Your task to perform on an android device: toggle javascript in the chrome app Image 0: 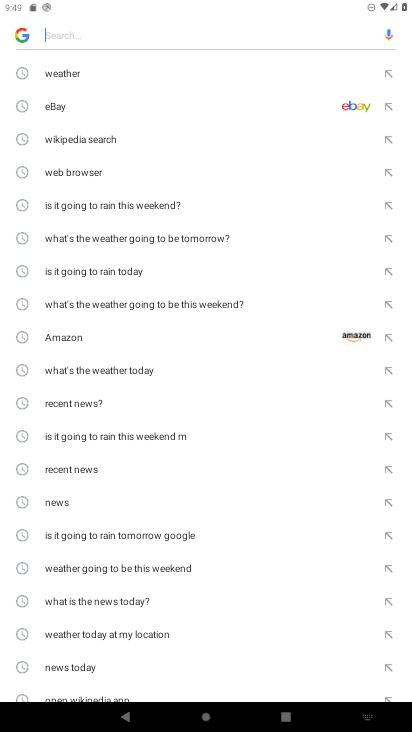
Step 0: press home button
Your task to perform on an android device: toggle javascript in the chrome app Image 1: 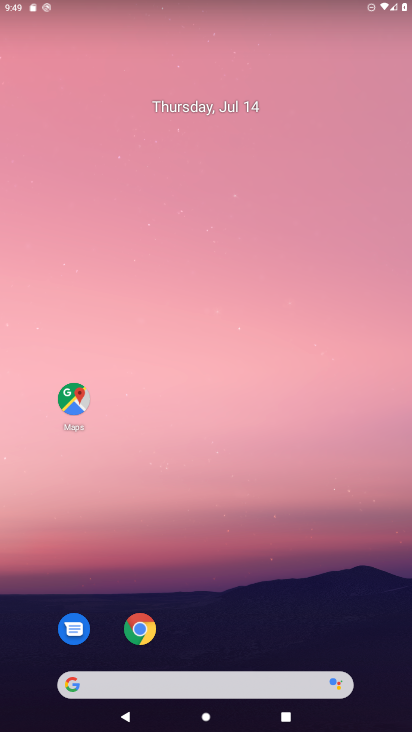
Step 1: drag from (290, 609) to (371, 70)
Your task to perform on an android device: toggle javascript in the chrome app Image 2: 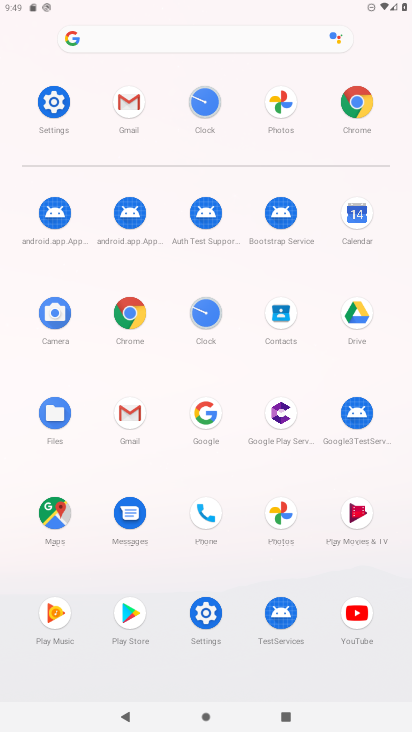
Step 2: click (125, 305)
Your task to perform on an android device: toggle javascript in the chrome app Image 3: 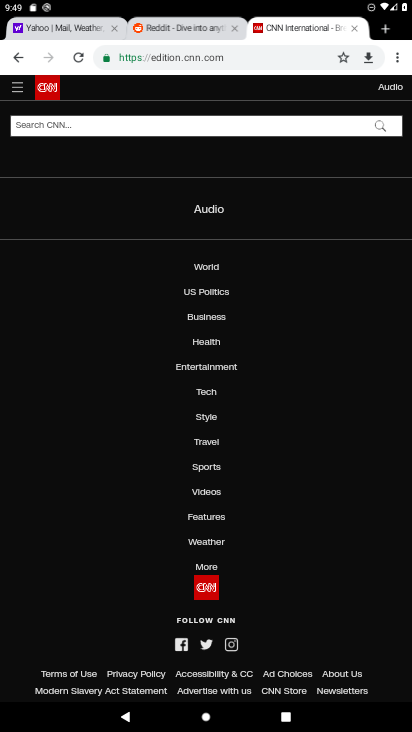
Step 3: drag from (399, 48) to (273, 370)
Your task to perform on an android device: toggle javascript in the chrome app Image 4: 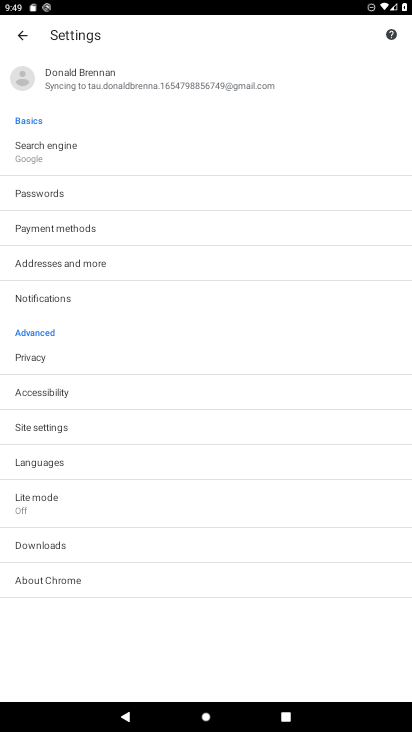
Step 4: click (43, 423)
Your task to perform on an android device: toggle javascript in the chrome app Image 5: 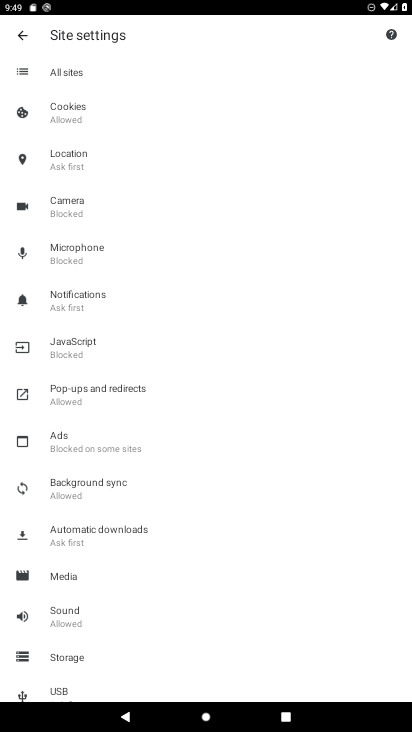
Step 5: click (65, 347)
Your task to perform on an android device: toggle javascript in the chrome app Image 6: 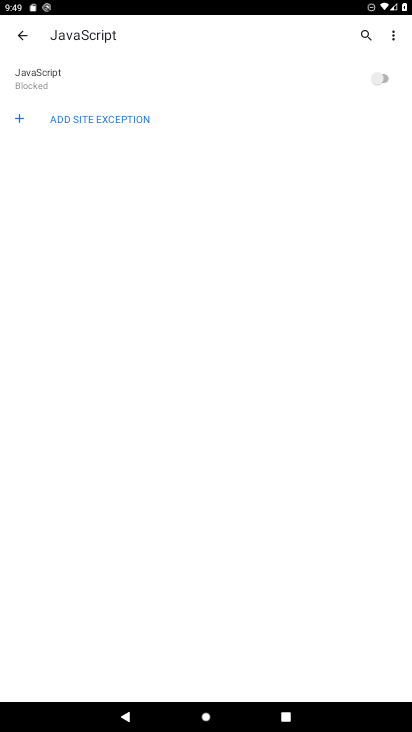
Step 6: click (299, 71)
Your task to perform on an android device: toggle javascript in the chrome app Image 7: 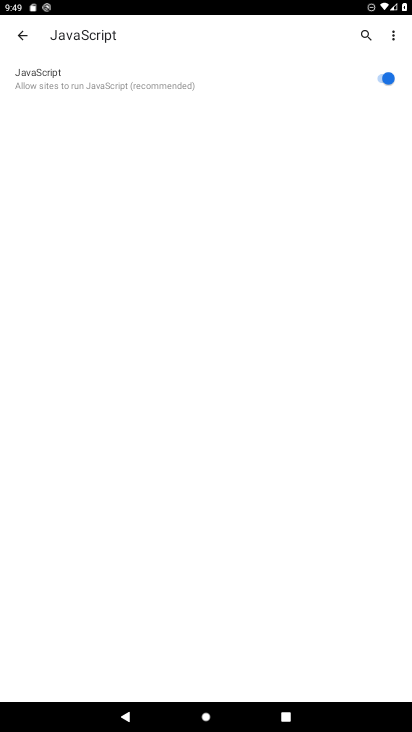
Step 7: task complete